Your task to perform on an android device: Open internet settings Image 0: 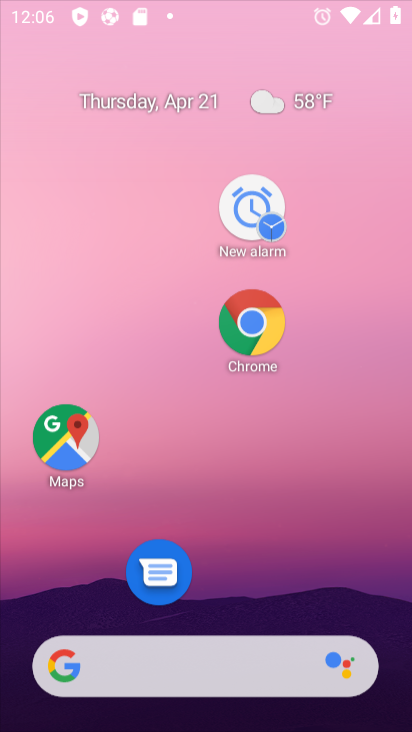
Step 0: click (287, 204)
Your task to perform on an android device: Open internet settings Image 1: 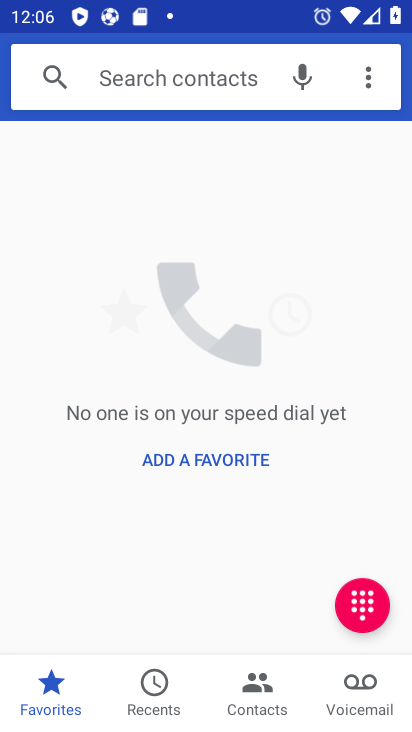
Step 1: press home button
Your task to perform on an android device: Open internet settings Image 2: 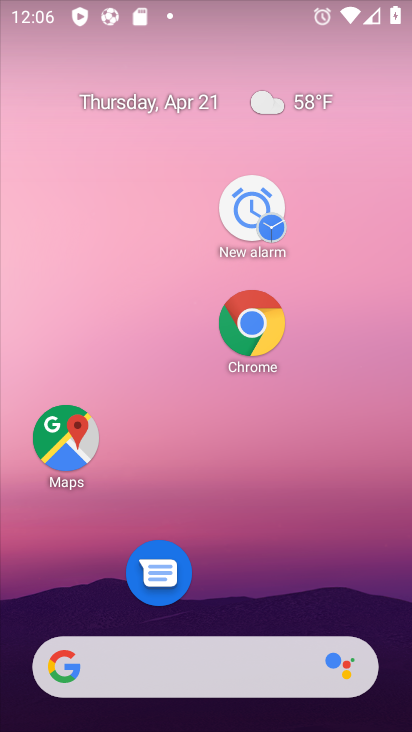
Step 2: drag from (254, 460) to (255, 172)
Your task to perform on an android device: Open internet settings Image 3: 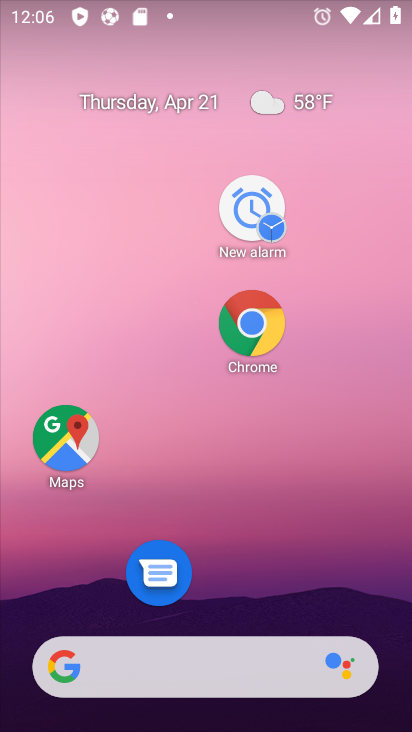
Step 3: drag from (330, 506) to (296, 389)
Your task to perform on an android device: Open internet settings Image 4: 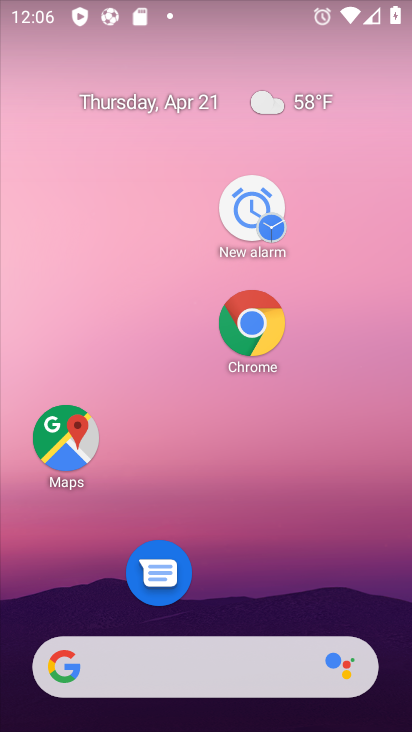
Step 4: drag from (274, 540) to (315, 105)
Your task to perform on an android device: Open internet settings Image 5: 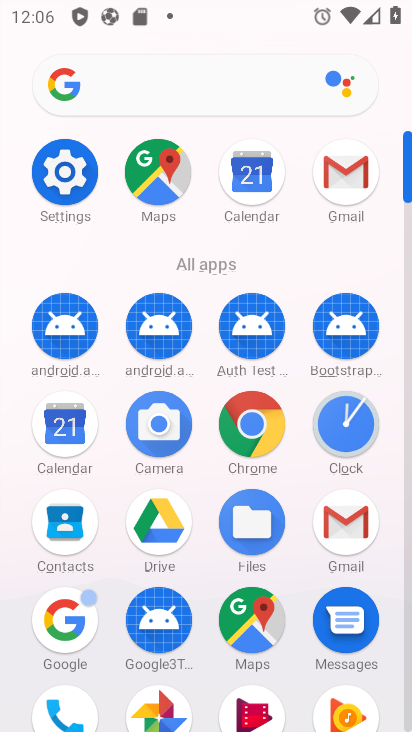
Step 5: click (70, 176)
Your task to perform on an android device: Open internet settings Image 6: 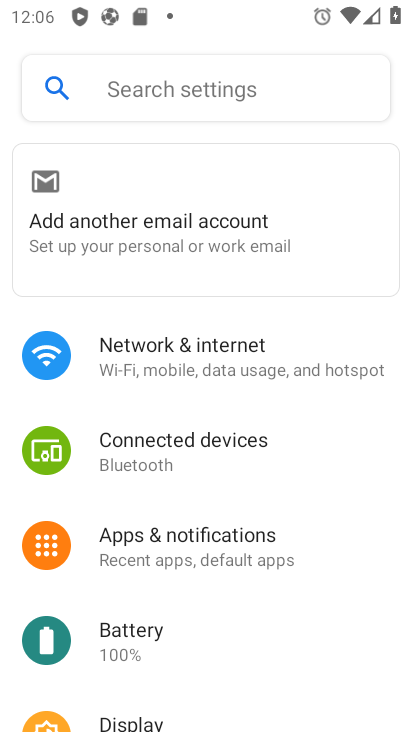
Step 6: click (146, 373)
Your task to perform on an android device: Open internet settings Image 7: 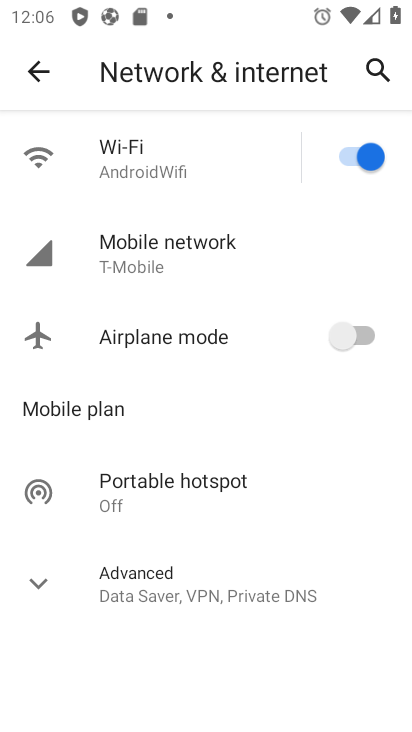
Step 7: drag from (158, 479) to (164, 432)
Your task to perform on an android device: Open internet settings Image 8: 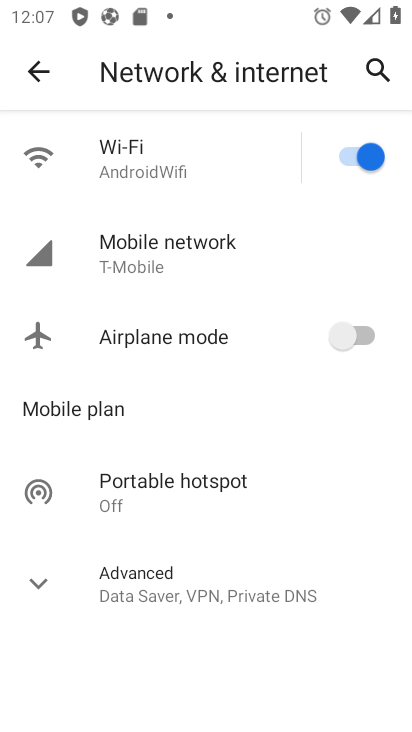
Step 8: click (194, 255)
Your task to perform on an android device: Open internet settings Image 9: 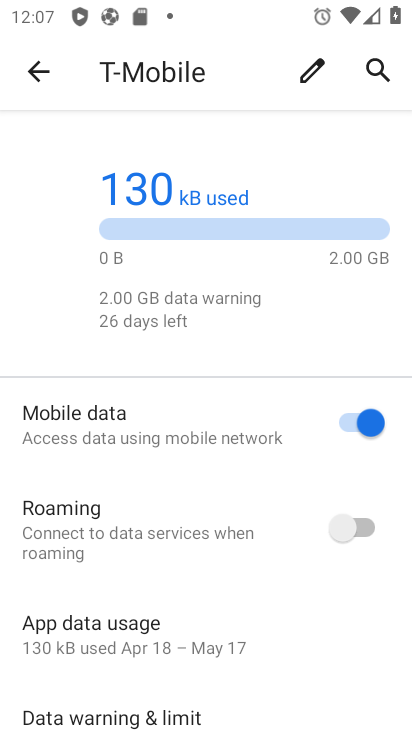
Step 9: task complete